Your task to perform on an android device: turn off location history Image 0: 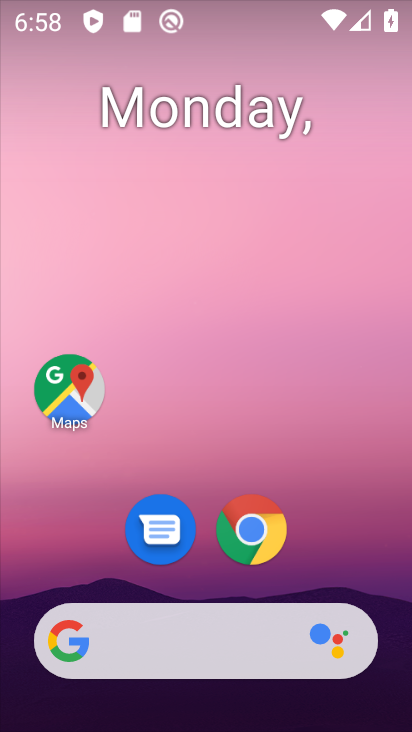
Step 0: press home button
Your task to perform on an android device: turn off location history Image 1: 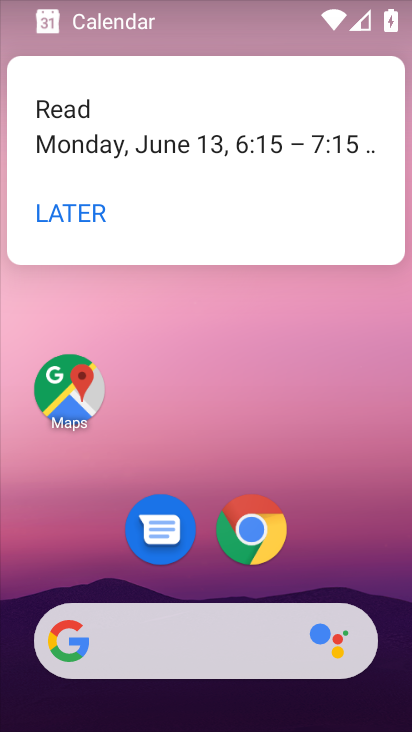
Step 1: click (312, 433)
Your task to perform on an android device: turn off location history Image 2: 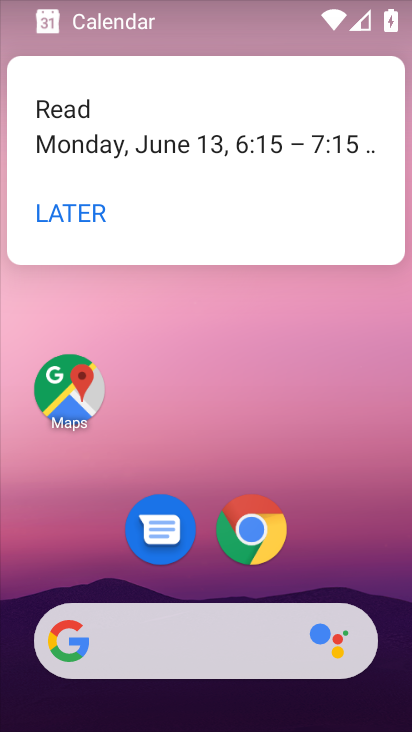
Step 2: click (71, 204)
Your task to perform on an android device: turn off location history Image 3: 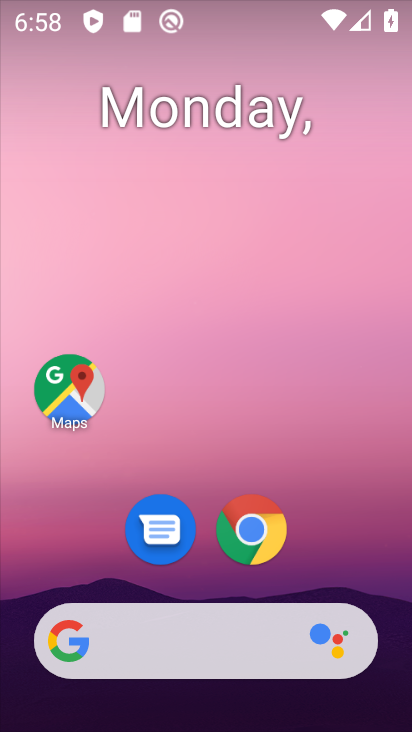
Step 3: drag from (354, 542) to (204, 18)
Your task to perform on an android device: turn off location history Image 4: 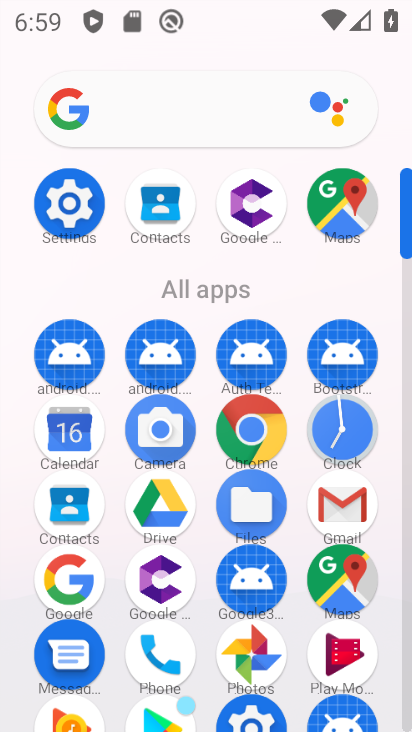
Step 4: click (346, 596)
Your task to perform on an android device: turn off location history Image 5: 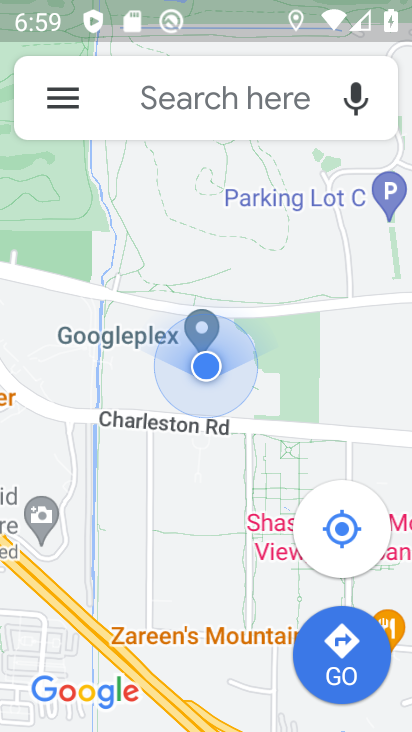
Step 5: click (79, 100)
Your task to perform on an android device: turn off location history Image 6: 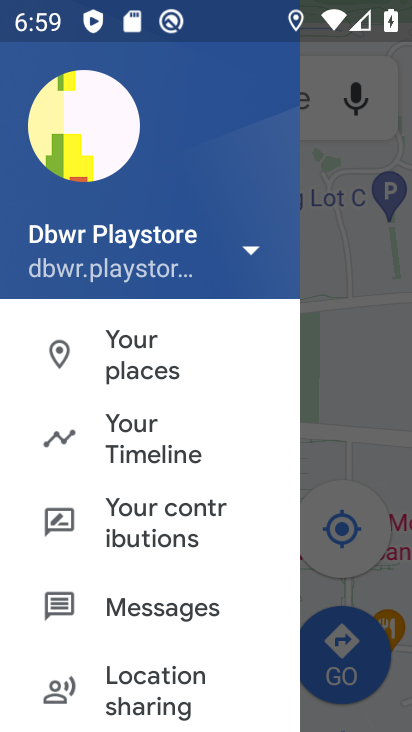
Step 6: click (142, 433)
Your task to perform on an android device: turn off location history Image 7: 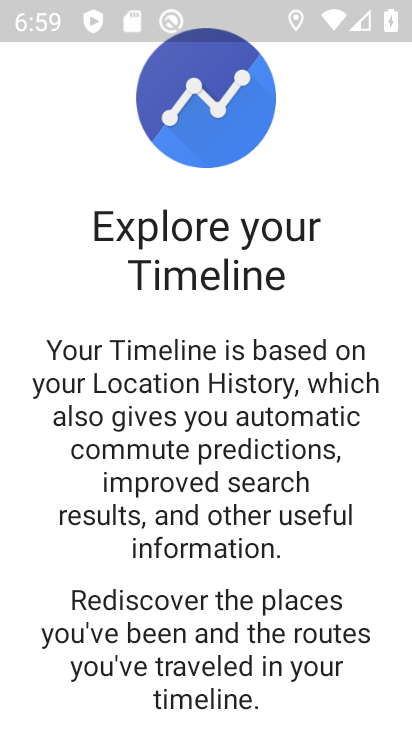
Step 7: drag from (330, 605) to (268, 145)
Your task to perform on an android device: turn off location history Image 8: 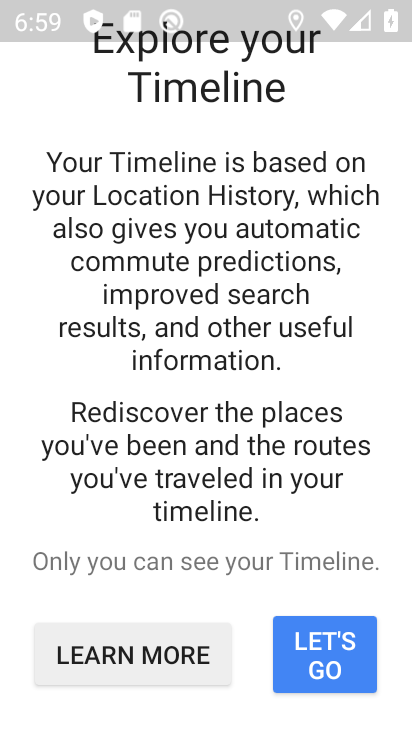
Step 8: click (310, 676)
Your task to perform on an android device: turn off location history Image 9: 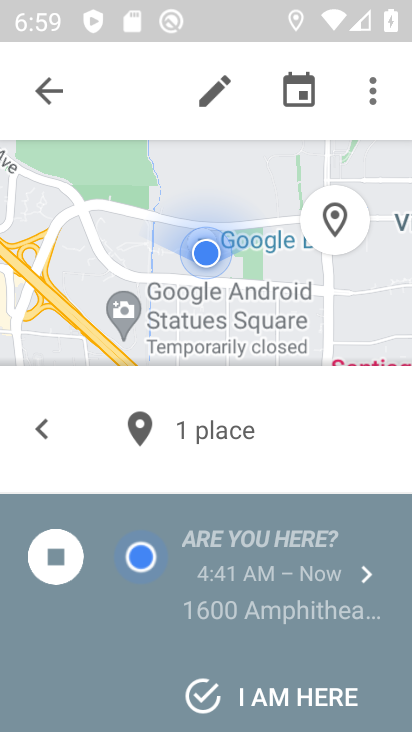
Step 9: click (367, 85)
Your task to perform on an android device: turn off location history Image 10: 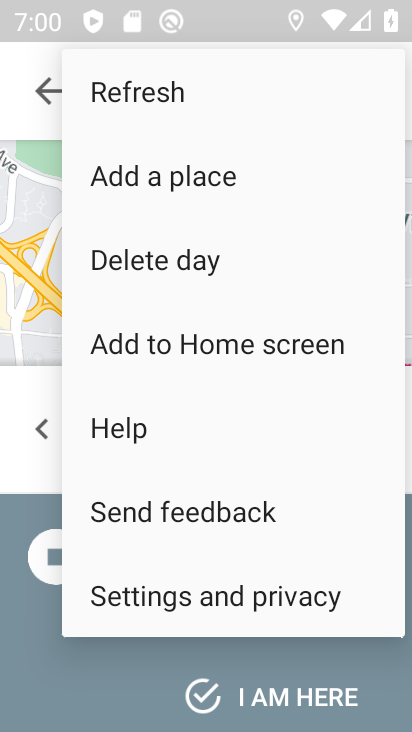
Step 10: click (243, 590)
Your task to perform on an android device: turn off location history Image 11: 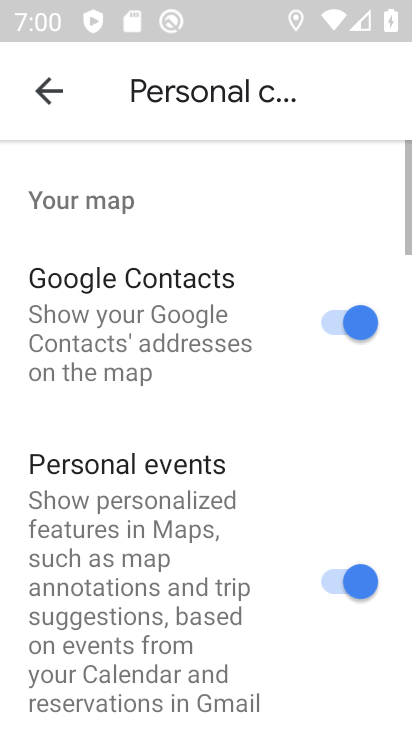
Step 11: drag from (248, 537) to (132, 101)
Your task to perform on an android device: turn off location history Image 12: 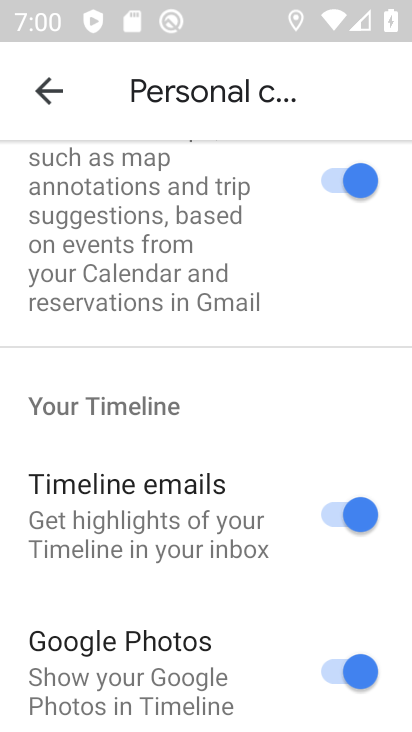
Step 12: drag from (258, 618) to (220, 263)
Your task to perform on an android device: turn off location history Image 13: 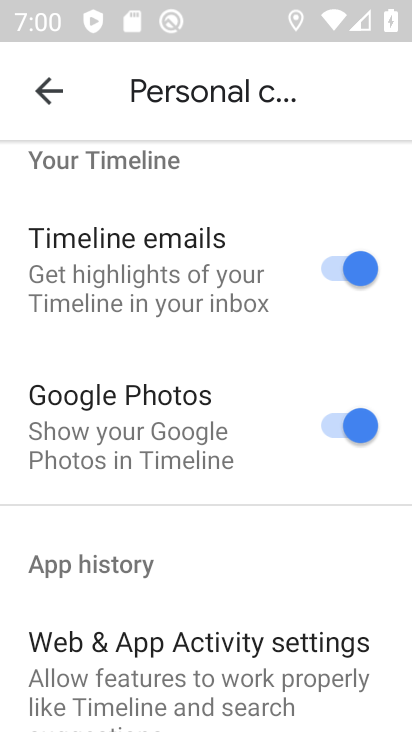
Step 13: drag from (208, 538) to (143, 223)
Your task to perform on an android device: turn off location history Image 14: 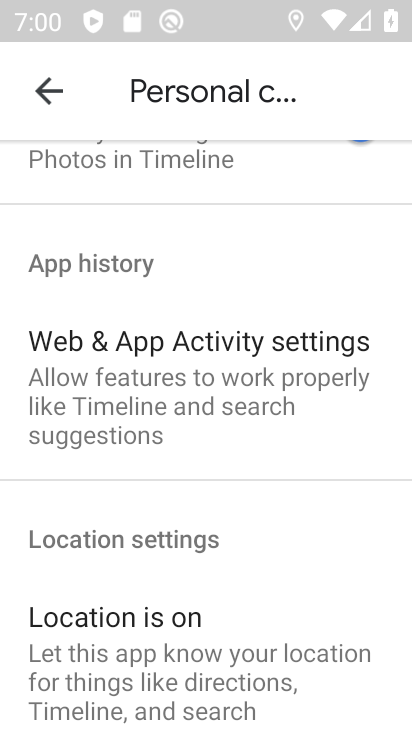
Step 14: drag from (193, 562) to (115, 270)
Your task to perform on an android device: turn off location history Image 15: 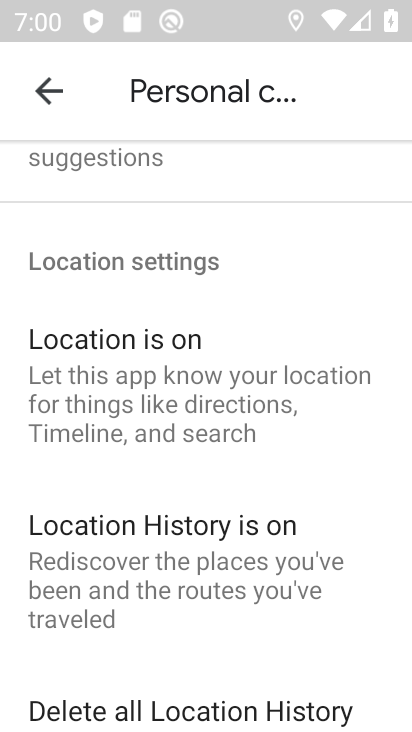
Step 15: click (186, 519)
Your task to perform on an android device: turn off location history Image 16: 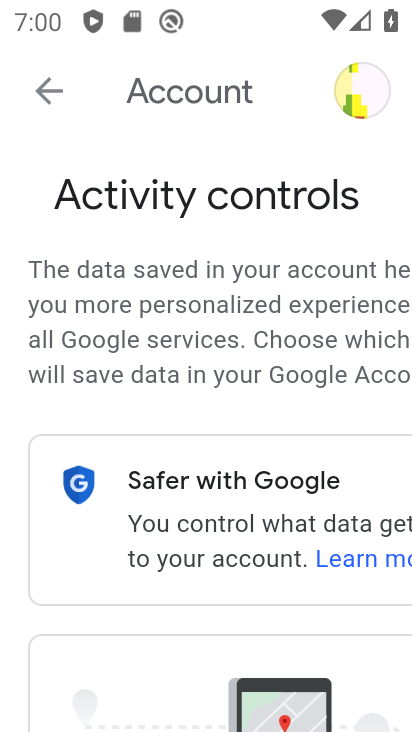
Step 16: drag from (299, 620) to (210, 285)
Your task to perform on an android device: turn off location history Image 17: 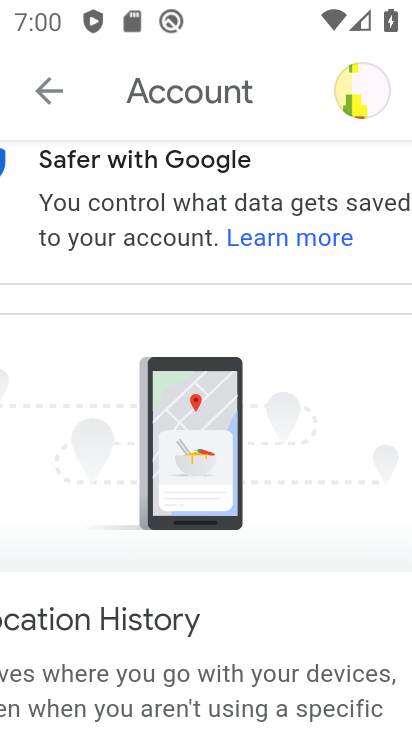
Step 17: drag from (240, 624) to (206, 290)
Your task to perform on an android device: turn off location history Image 18: 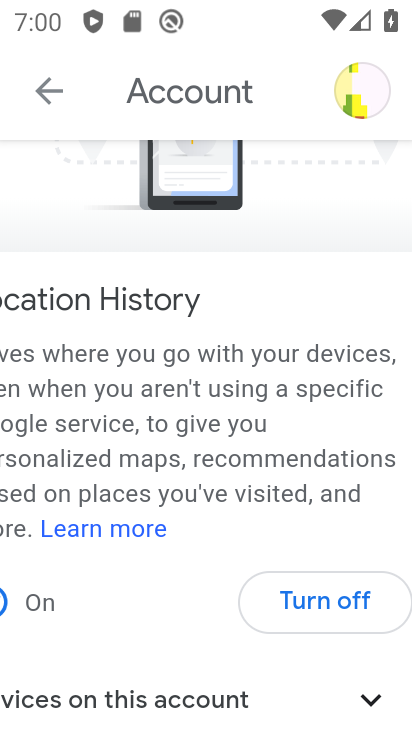
Step 18: click (321, 603)
Your task to perform on an android device: turn off location history Image 19: 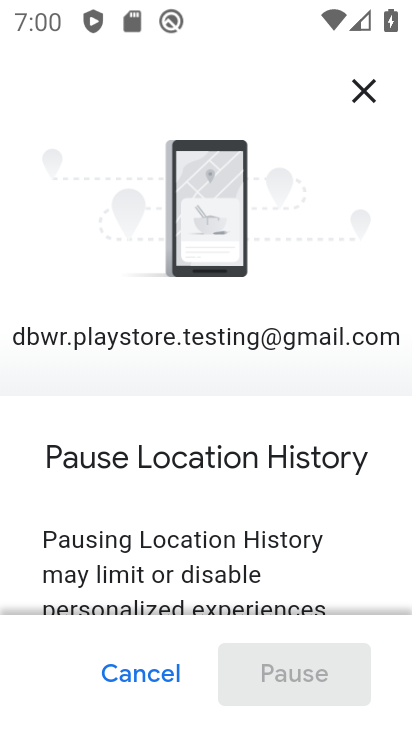
Step 19: drag from (299, 562) to (246, 230)
Your task to perform on an android device: turn off location history Image 20: 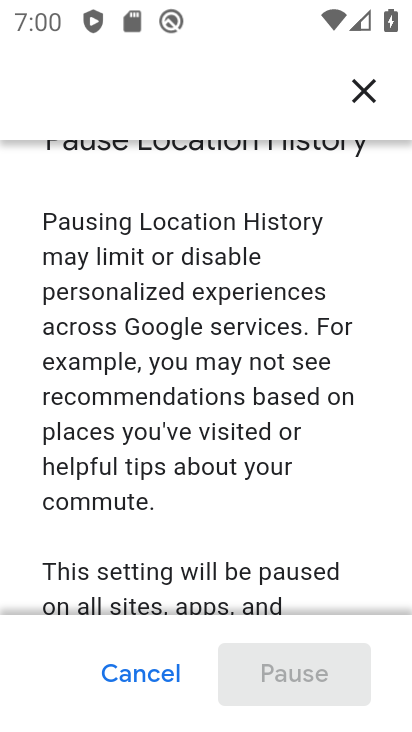
Step 20: drag from (286, 522) to (241, 188)
Your task to perform on an android device: turn off location history Image 21: 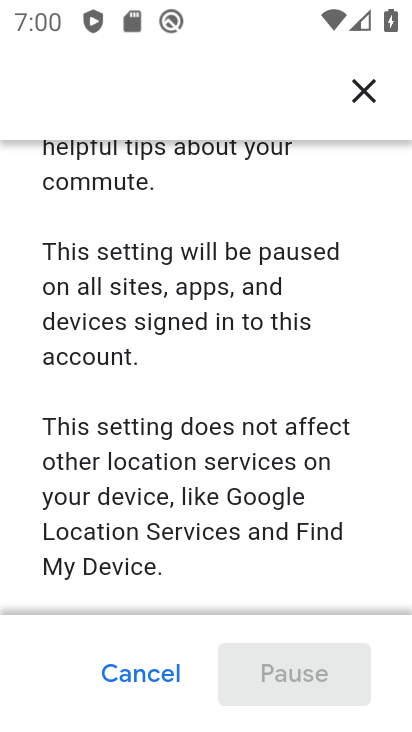
Step 21: drag from (282, 539) to (221, 277)
Your task to perform on an android device: turn off location history Image 22: 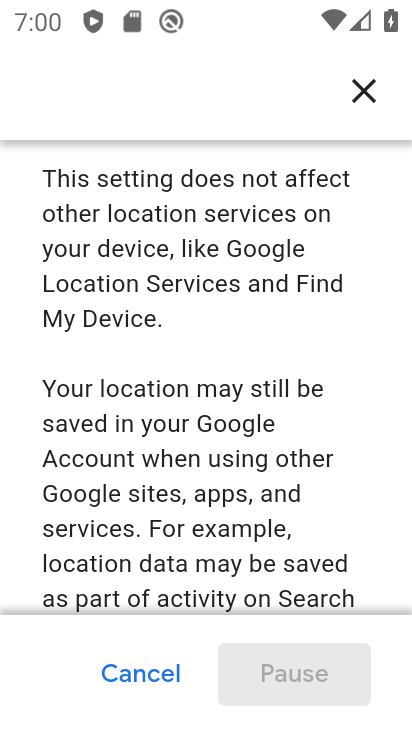
Step 22: drag from (269, 504) to (196, 190)
Your task to perform on an android device: turn off location history Image 23: 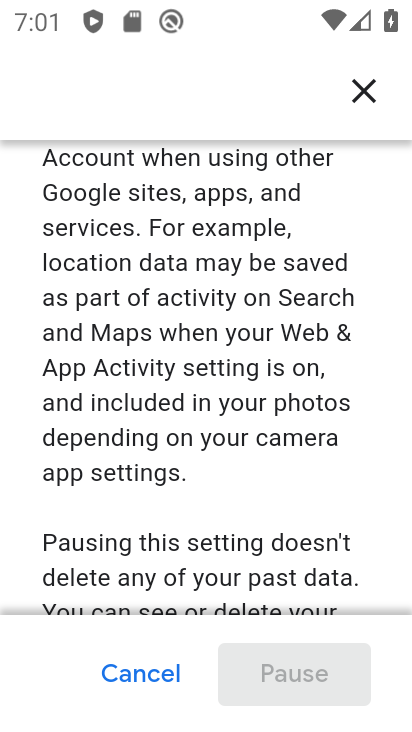
Step 23: drag from (268, 467) to (185, 163)
Your task to perform on an android device: turn off location history Image 24: 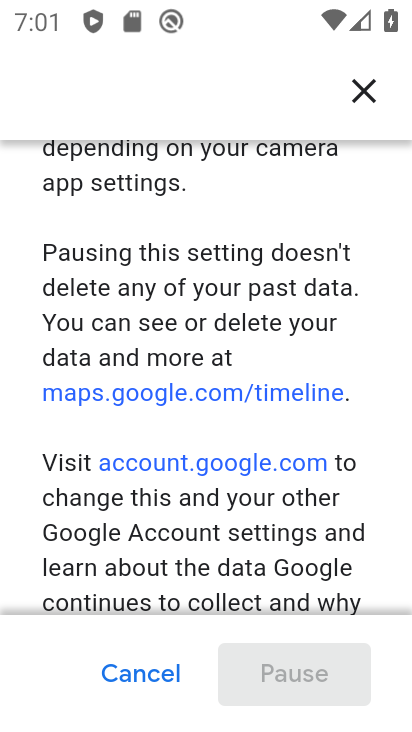
Step 24: drag from (262, 483) to (205, 239)
Your task to perform on an android device: turn off location history Image 25: 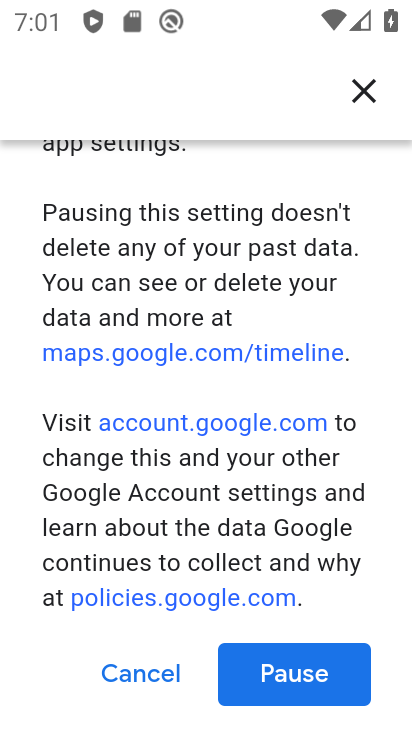
Step 25: click (288, 690)
Your task to perform on an android device: turn off location history Image 26: 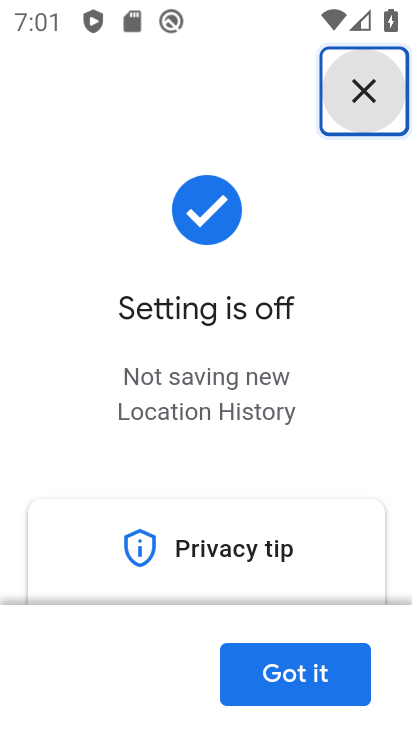
Step 26: click (285, 676)
Your task to perform on an android device: turn off location history Image 27: 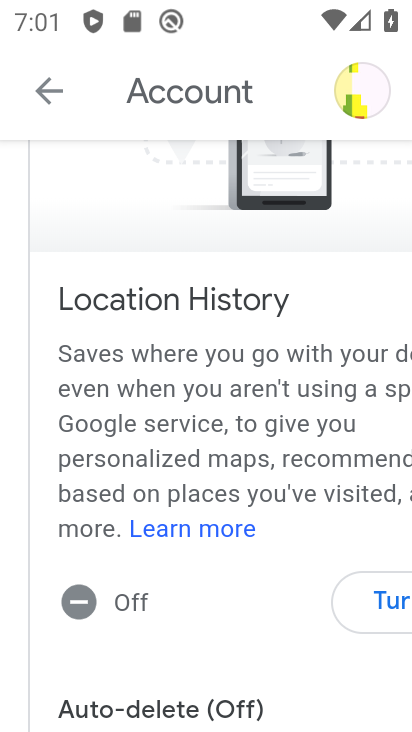
Step 27: task complete